Your task to perform on an android device: change the clock display to analog Image 0: 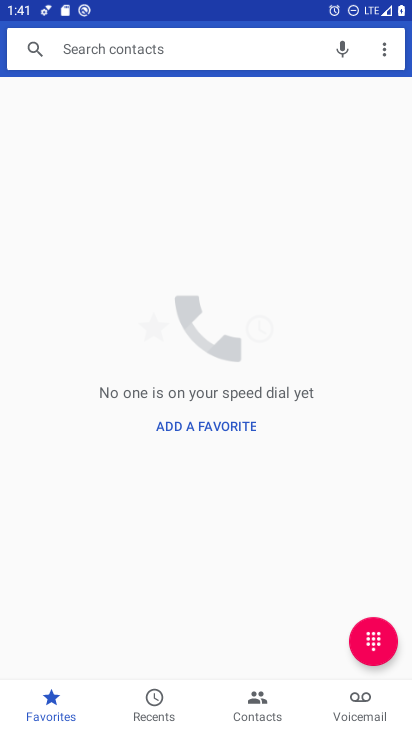
Step 0: press home button
Your task to perform on an android device: change the clock display to analog Image 1: 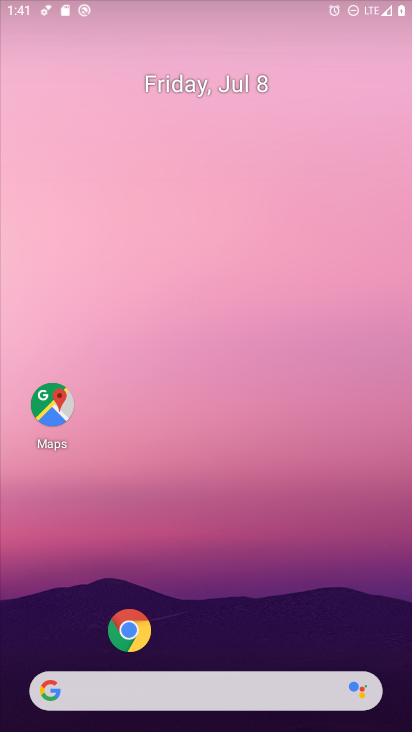
Step 1: drag from (239, 624) to (230, 161)
Your task to perform on an android device: change the clock display to analog Image 2: 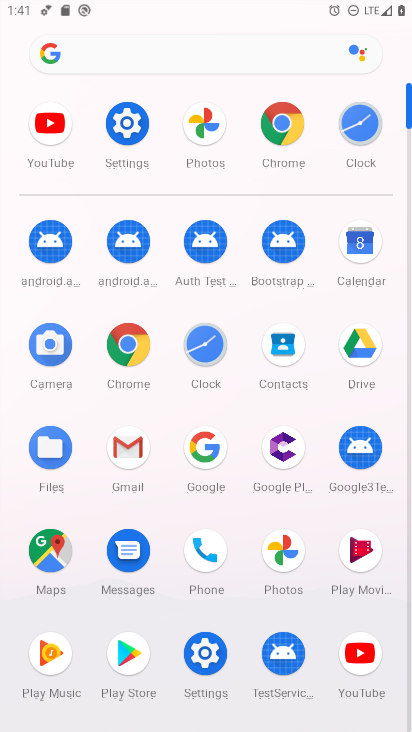
Step 2: click (213, 344)
Your task to perform on an android device: change the clock display to analog Image 3: 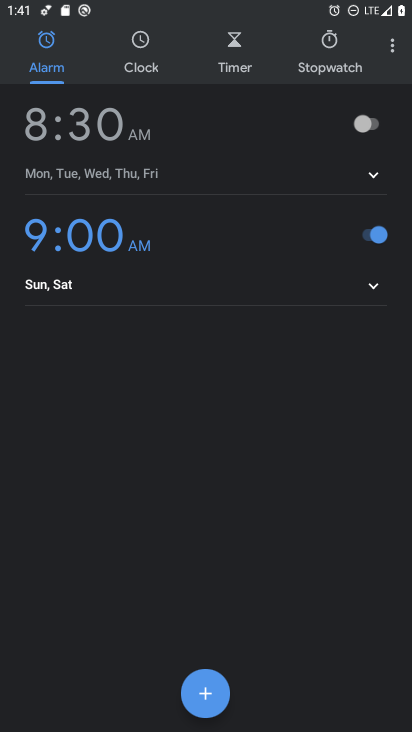
Step 3: click (384, 39)
Your task to perform on an android device: change the clock display to analog Image 4: 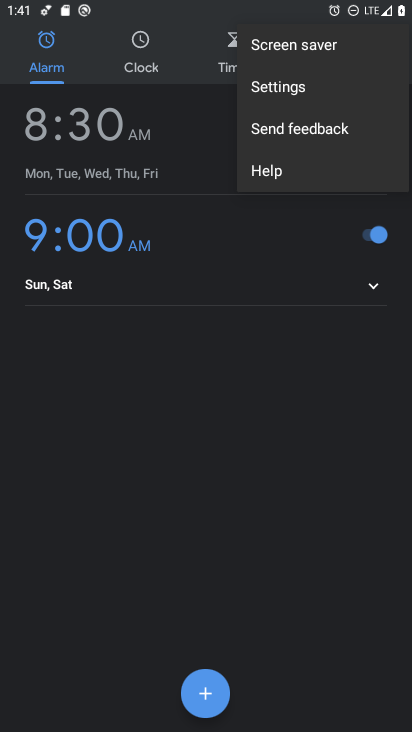
Step 4: click (301, 94)
Your task to perform on an android device: change the clock display to analog Image 5: 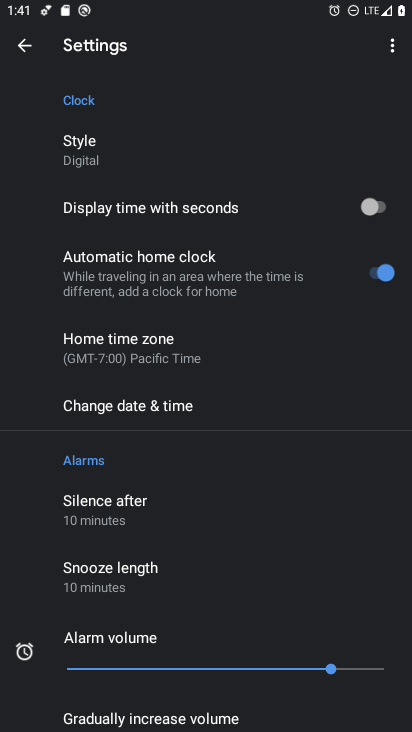
Step 5: click (174, 154)
Your task to perform on an android device: change the clock display to analog Image 6: 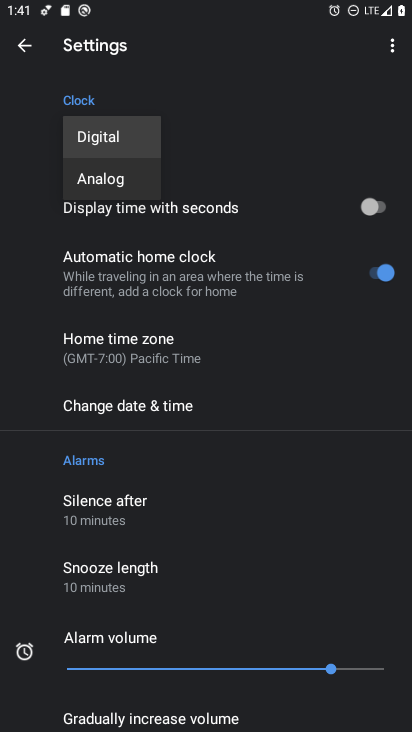
Step 6: click (106, 184)
Your task to perform on an android device: change the clock display to analog Image 7: 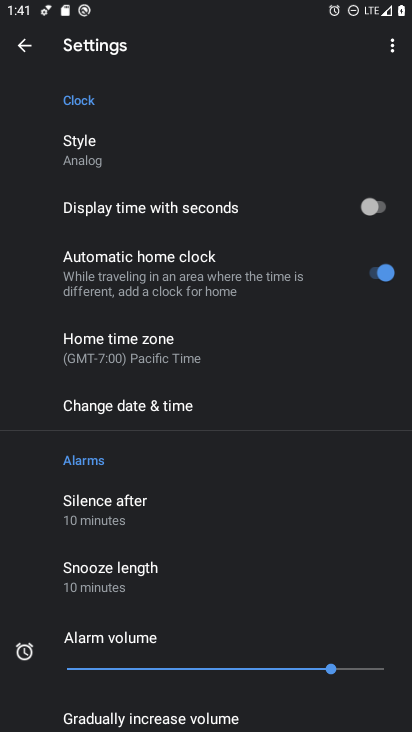
Step 7: task complete